Your task to perform on an android device: turn off improve location accuracy Image 0: 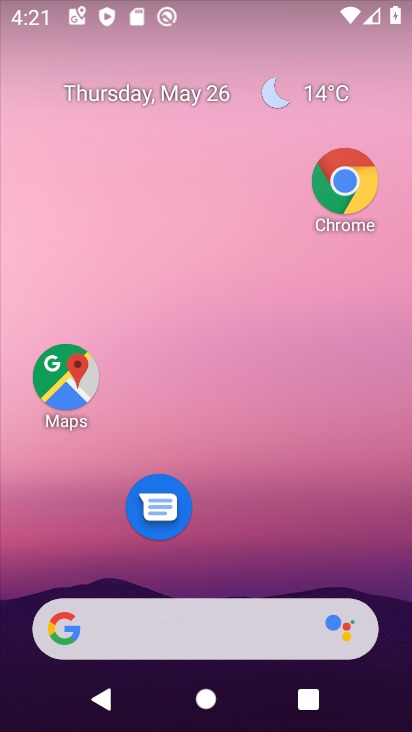
Step 0: drag from (271, 540) to (269, 112)
Your task to perform on an android device: turn off improve location accuracy Image 1: 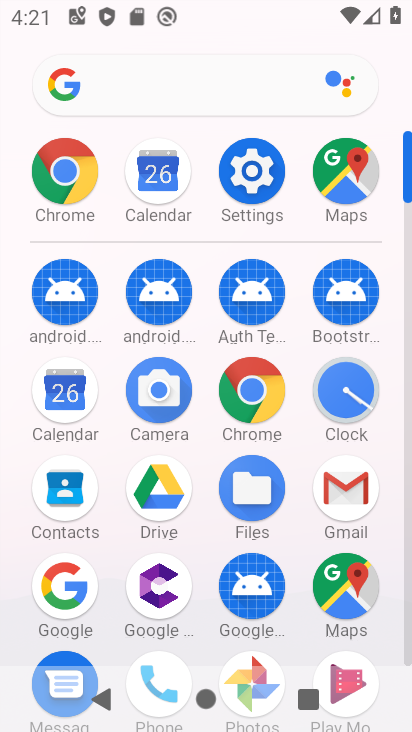
Step 1: click (249, 174)
Your task to perform on an android device: turn off improve location accuracy Image 2: 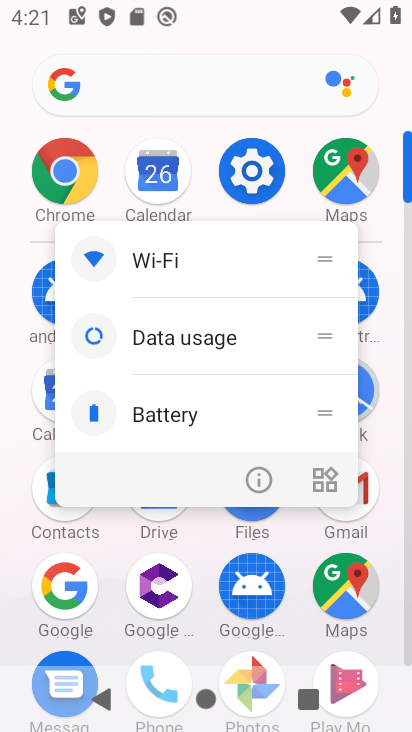
Step 2: click (251, 169)
Your task to perform on an android device: turn off improve location accuracy Image 3: 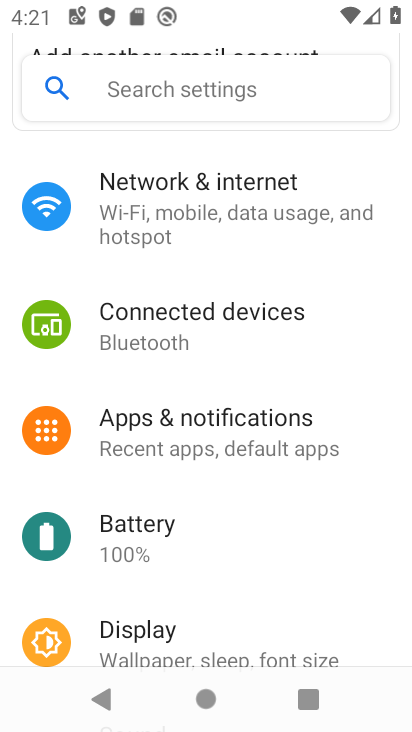
Step 3: drag from (278, 622) to (295, 281)
Your task to perform on an android device: turn off improve location accuracy Image 4: 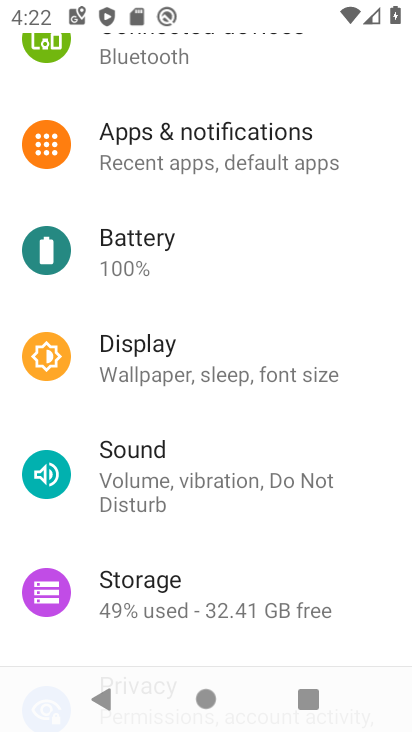
Step 4: drag from (269, 542) to (269, 156)
Your task to perform on an android device: turn off improve location accuracy Image 5: 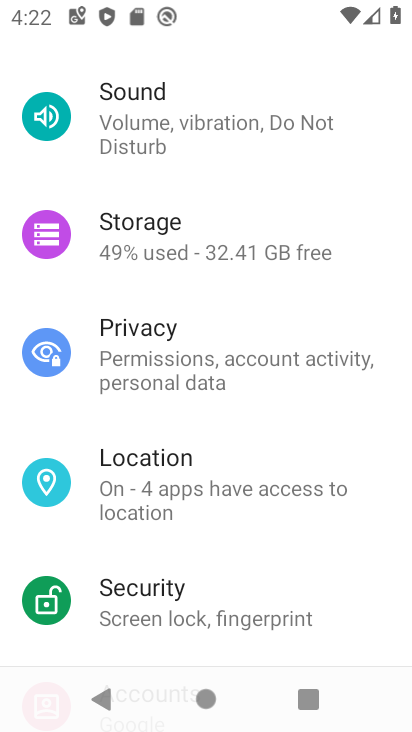
Step 5: click (150, 485)
Your task to perform on an android device: turn off improve location accuracy Image 6: 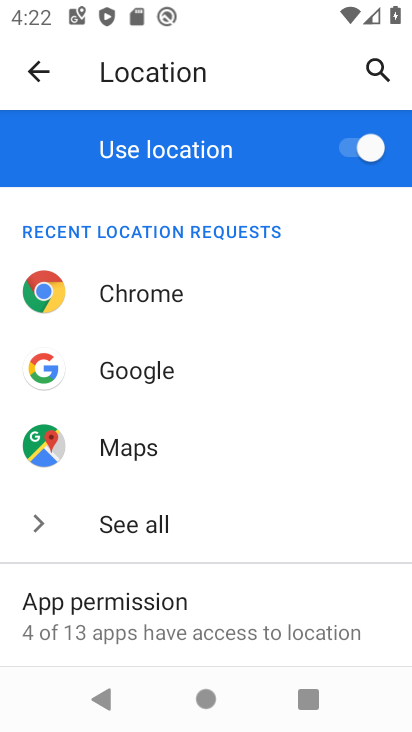
Step 6: click (347, 146)
Your task to perform on an android device: turn off improve location accuracy Image 7: 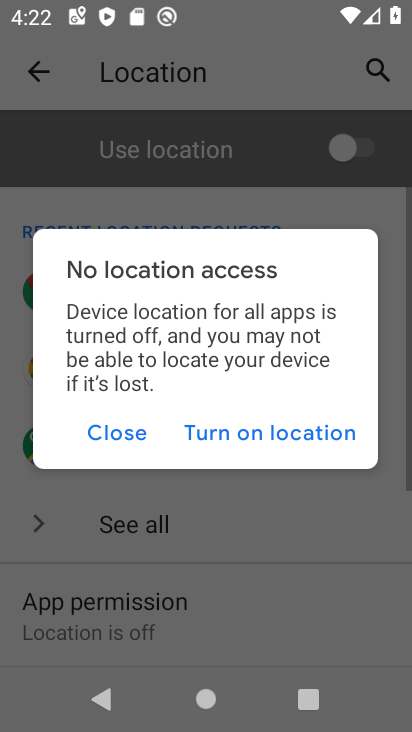
Step 7: task complete